Your task to perform on an android device: Open settings Image 0: 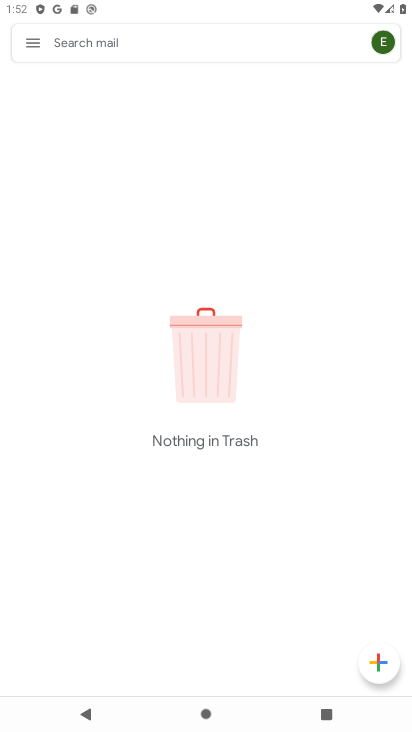
Step 0: drag from (176, 159) to (216, 514)
Your task to perform on an android device: Open settings Image 1: 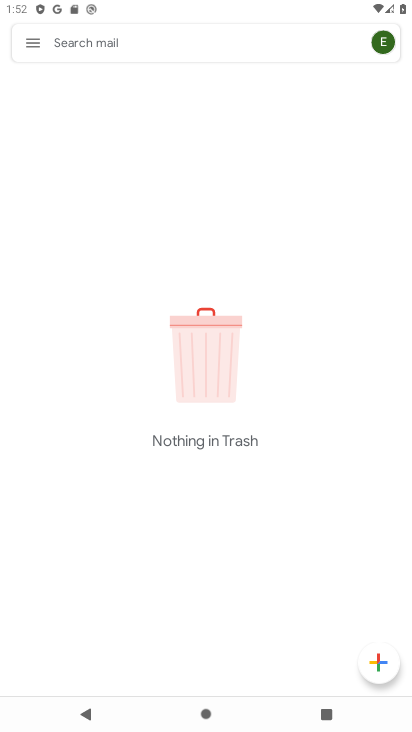
Step 1: drag from (189, 13) to (187, 390)
Your task to perform on an android device: Open settings Image 2: 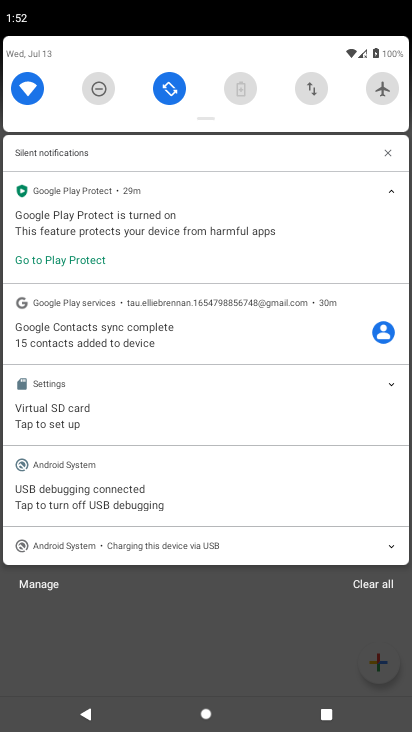
Step 2: drag from (200, 48) to (252, 354)
Your task to perform on an android device: Open settings Image 3: 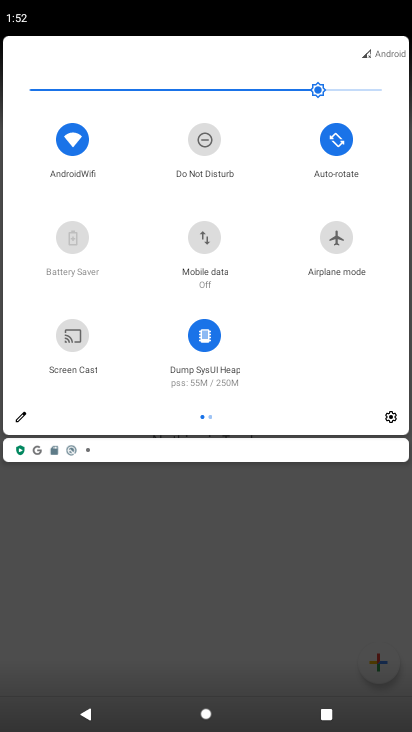
Step 3: click (393, 421)
Your task to perform on an android device: Open settings Image 4: 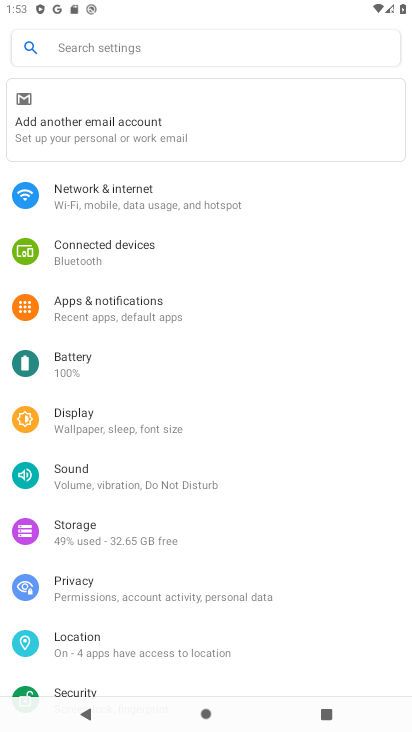
Step 4: task complete